Your task to perform on an android device: Turn on the flashlight Image 0: 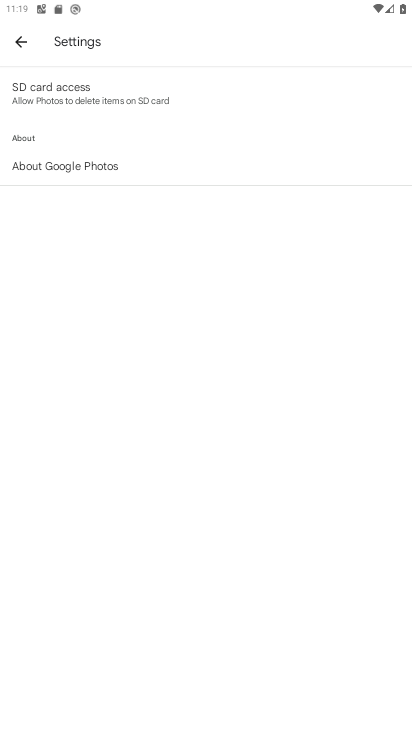
Step 0: press home button
Your task to perform on an android device: Turn on the flashlight Image 1: 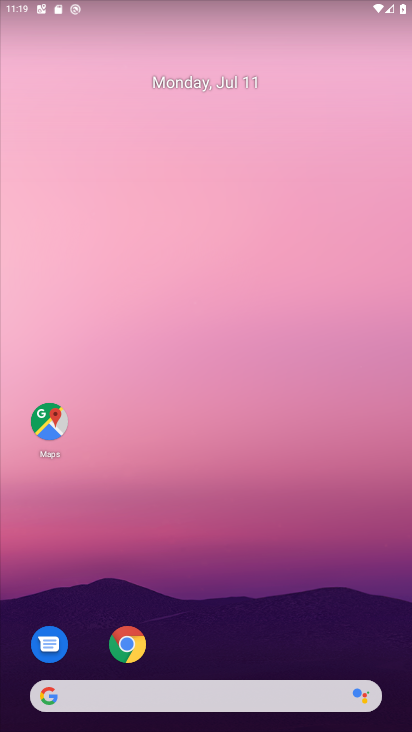
Step 1: drag from (257, 626) to (333, 1)
Your task to perform on an android device: Turn on the flashlight Image 2: 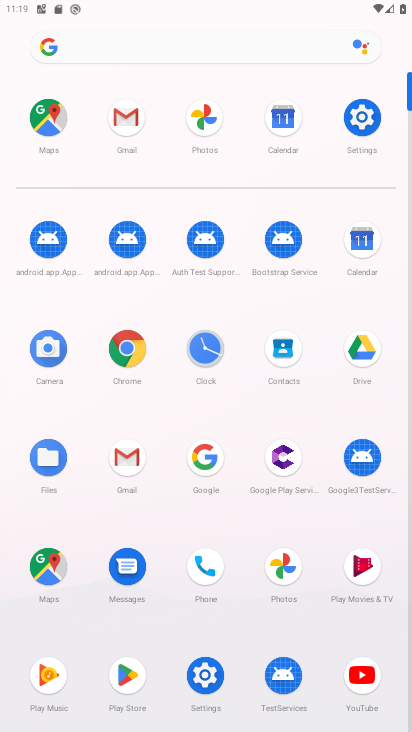
Step 2: click (373, 124)
Your task to perform on an android device: Turn on the flashlight Image 3: 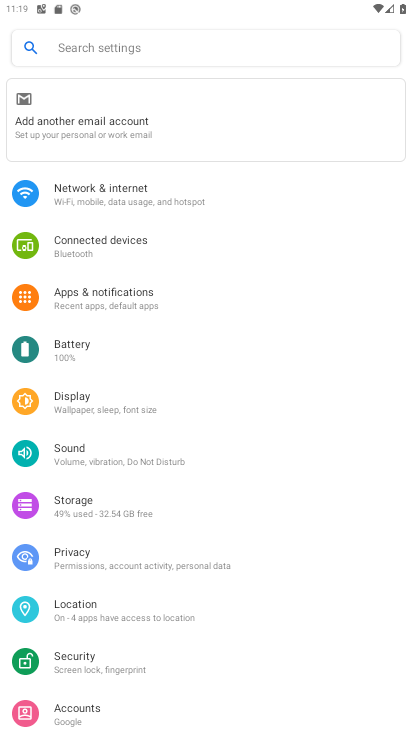
Step 3: task complete